Your task to perform on an android device: Open Chrome and go to settings Image 0: 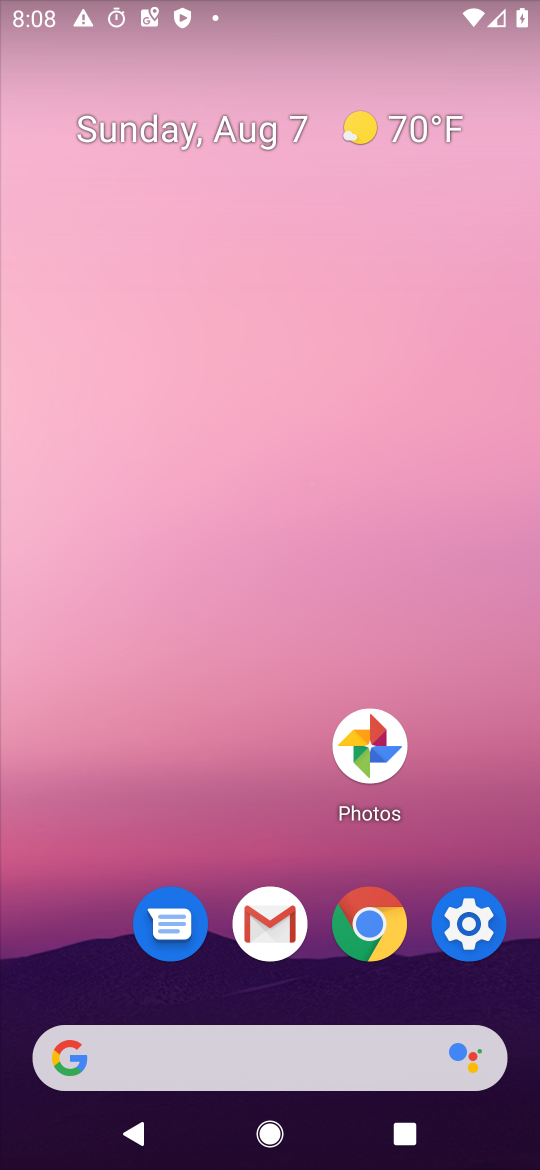
Step 0: press home button
Your task to perform on an android device: Open Chrome and go to settings Image 1: 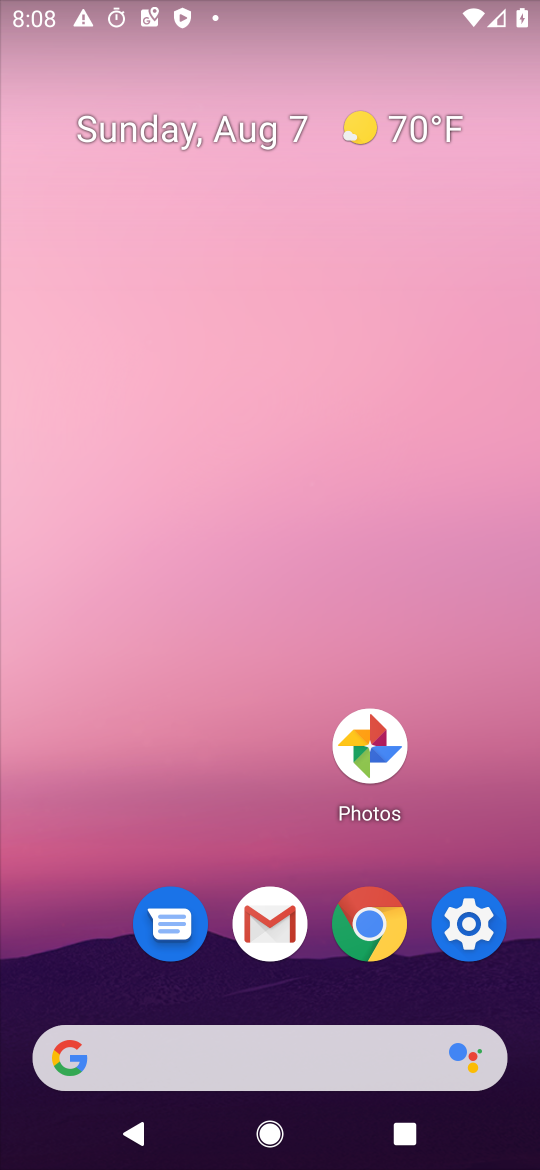
Step 1: drag from (372, 989) to (395, 146)
Your task to perform on an android device: Open Chrome and go to settings Image 2: 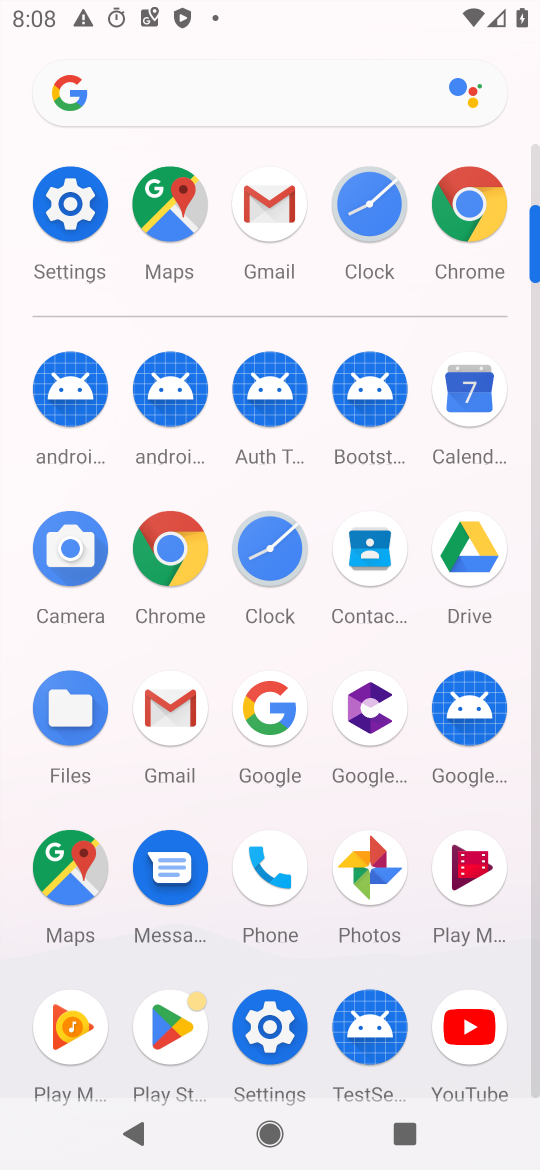
Step 2: click (444, 225)
Your task to perform on an android device: Open Chrome and go to settings Image 3: 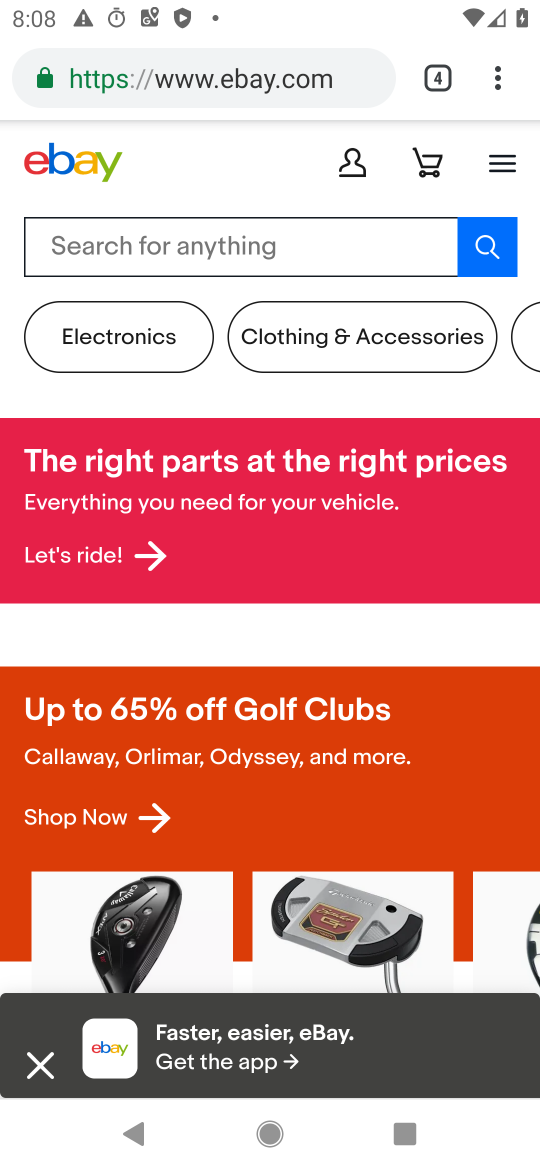
Step 3: click (484, 86)
Your task to perform on an android device: Open Chrome and go to settings Image 4: 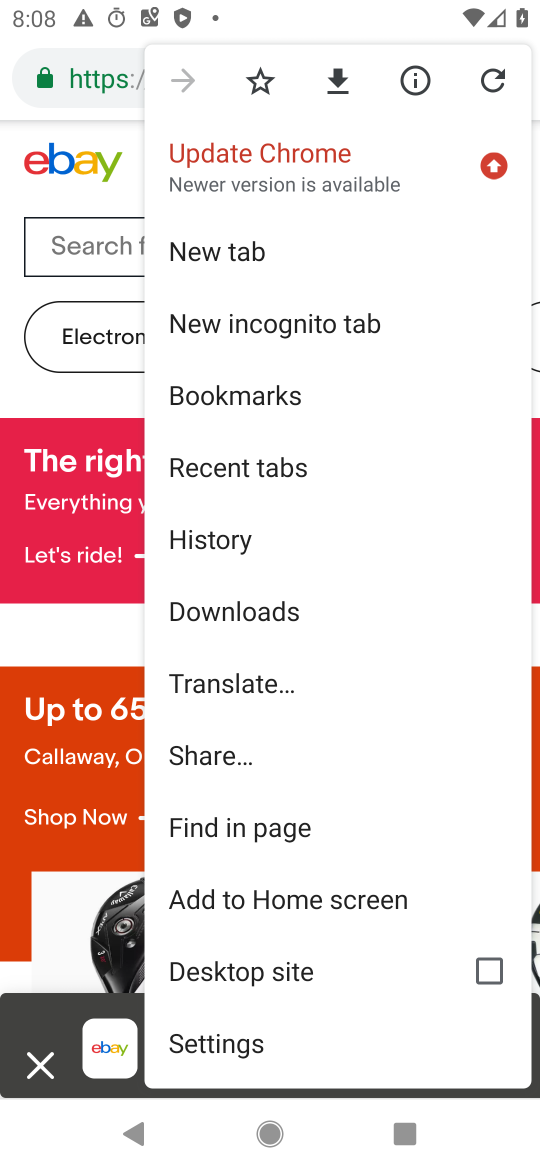
Step 4: click (210, 1040)
Your task to perform on an android device: Open Chrome and go to settings Image 5: 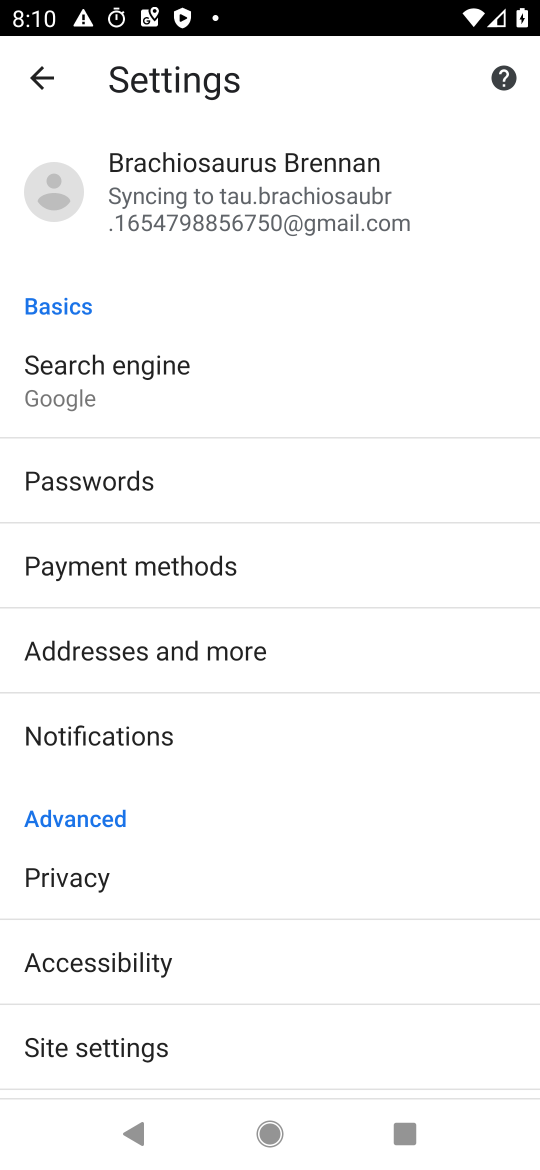
Step 5: task complete